Your task to perform on an android device: open app "Yahoo Mail" Image 0: 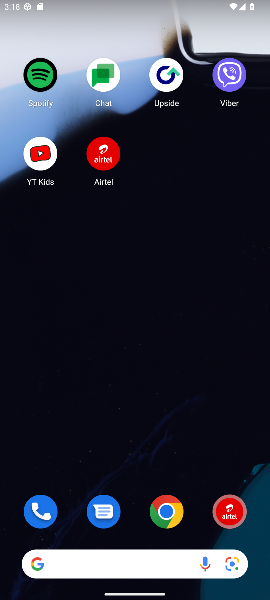
Step 0: drag from (124, 524) to (112, 23)
Your task to perform on an android device: open app "Yahoo Mail" Image 1: 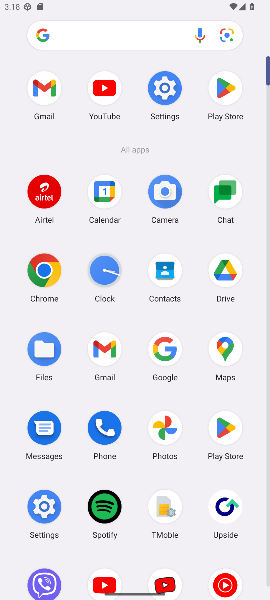
Step 1: click (225, 95)
Your task to perform on an android device: open app "Yahoo Mail" Image 2: 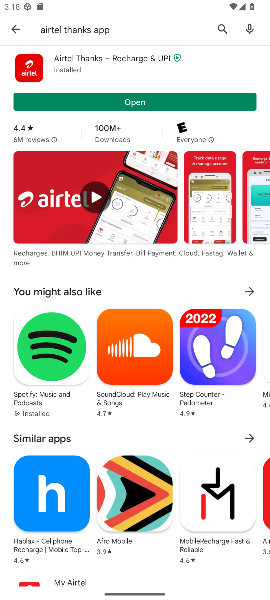
Step 2: click (14, 29)
Your task to perform on an android device: open app "Yahoo Mail" Image 3: 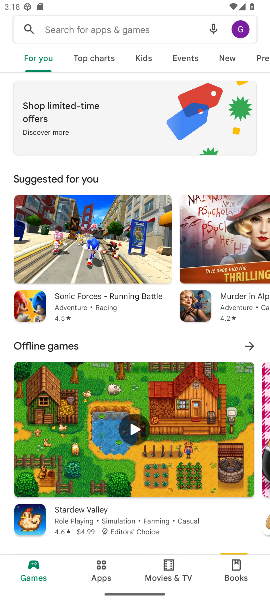
Step 3: click (91, 29)
Your task to perform on an android device: open app "Yahoo Mail" Image 4: 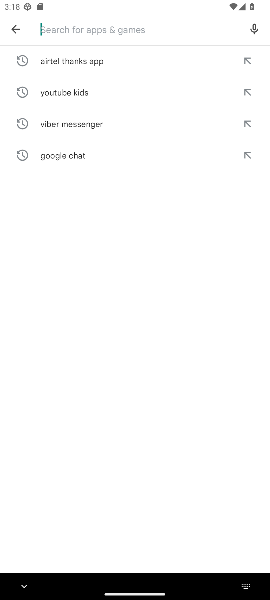
Step 4: type "yahoo mail"
Your task to perform on an android device: open app "Yahoo Mail" Image 5: 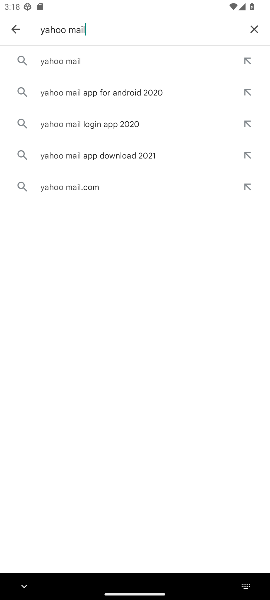
Step 5: click (49, 58)
Your task to perform on an android device: open app "Yahoo Mail" Image 6: 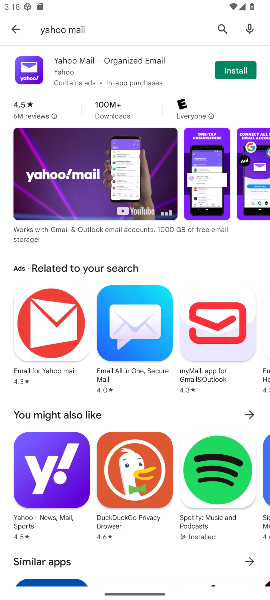
Step 6: click (230, 68)
Your task to perform on an android device: open app "Yahoo Mail" Image 7: 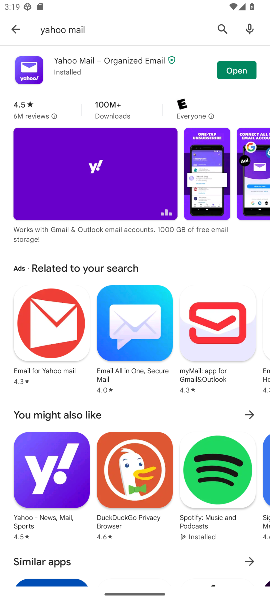
Step 7: click (239, 72)
Your task to perform on an android device: open app "Yahoo Mail" Image 8: 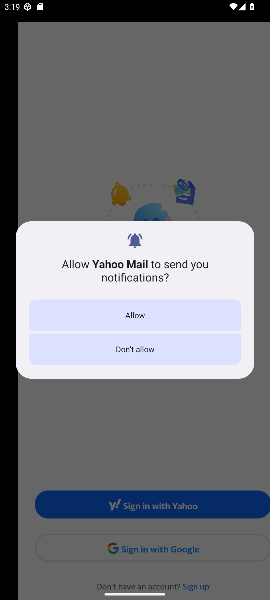
Step 8: click (149, 313)
Your task to perform on an android device: open app "Yahoo Mail" Image 9: 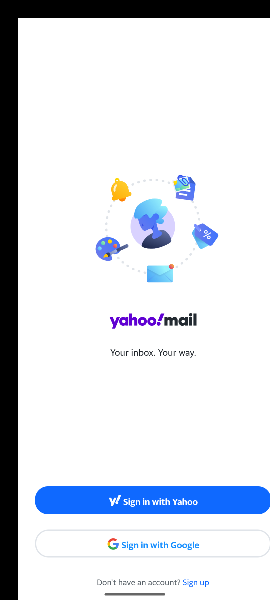
Step 9: task complete